Your task to perform on an android device: When is my next appointment? Image 0: 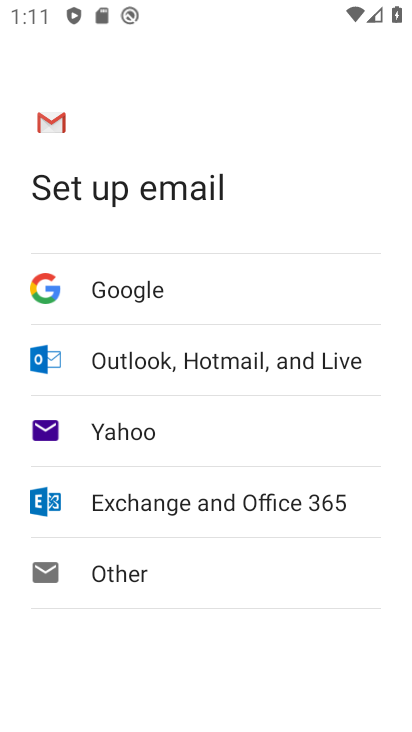
Step 0: press home button
Your task to perform on an android device: When is my next appointment? Image 1: 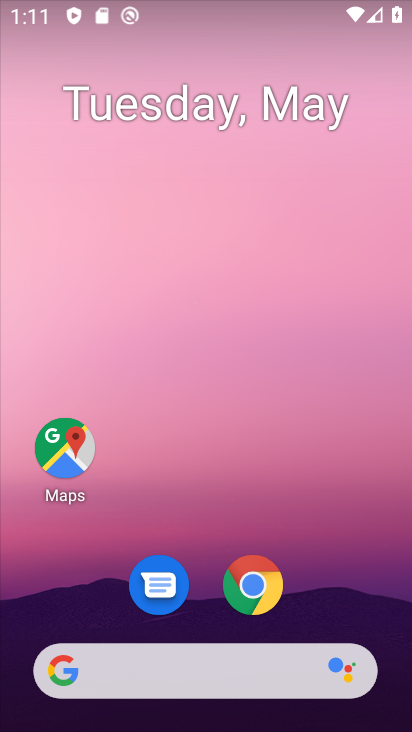
Step 1: drag from (307, 511) to (305, 71)
Your task to perform on an android device: When is my next appointment? Image 2: 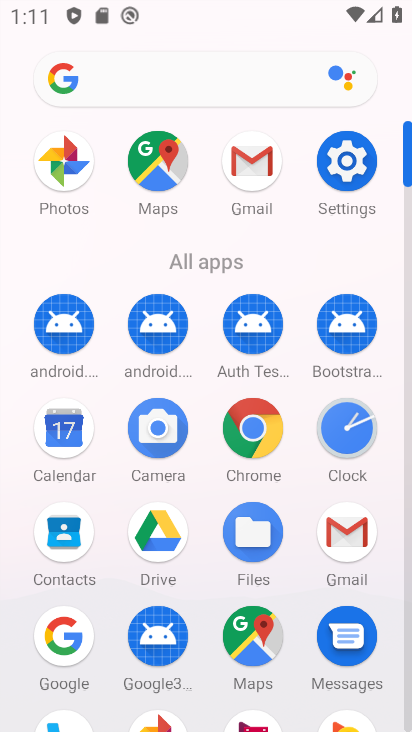
Step 2: click (65, 431)
Your task to perform on an android device: When is my next appointment? Image 3: 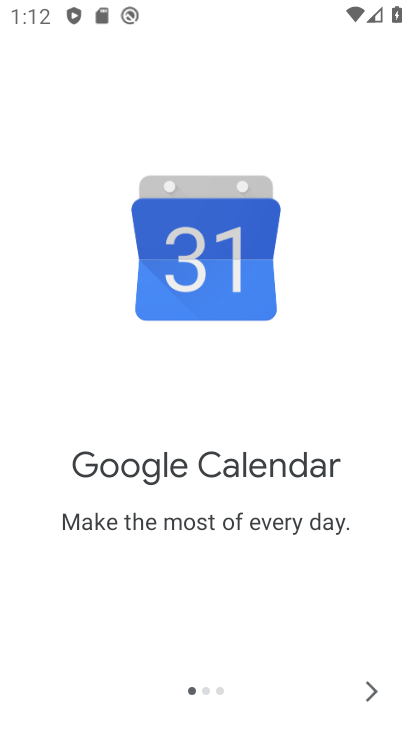
Step 3: click (360, 685)
Your task to perform on an android device: When is my next appointment? Image 4: 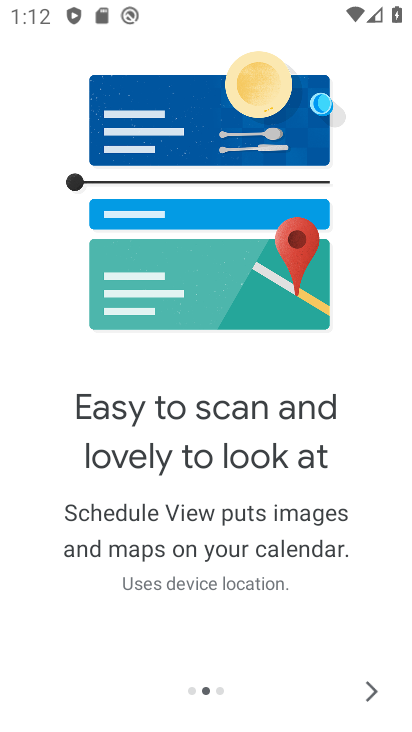
Step 4: click (360, 685)
Your task to perform on an android device: When is my next appointment? Image 5: 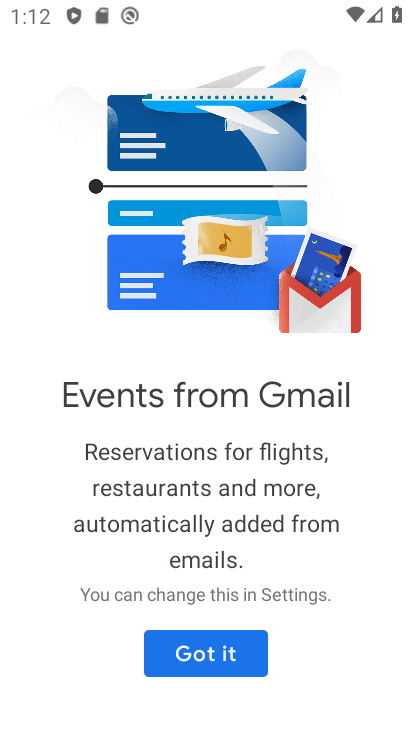
Step 5: click (256, 654)
Your task to perform on an android device: When is my next appointment? Image 6: 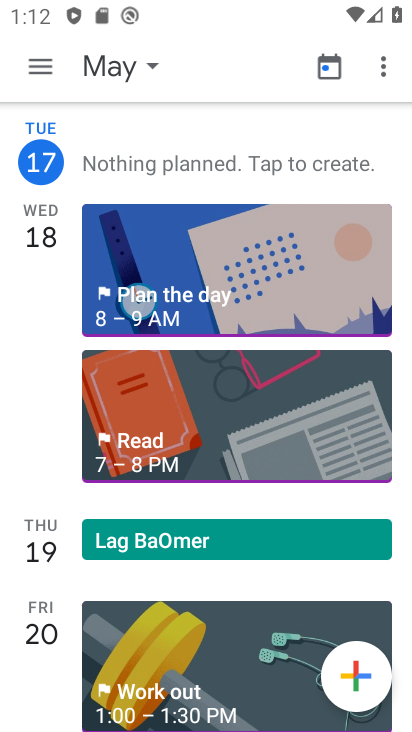
Step 6: task complete